Your task to perform on an android device: toggle sleep mode Image 0: 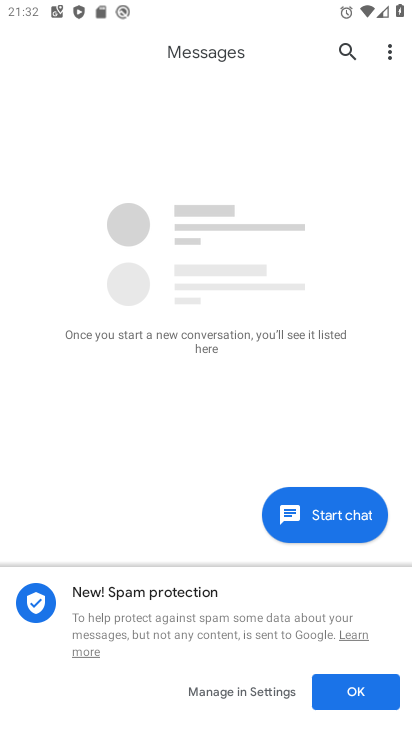
Step 0: press home button
Your task to perform on an android device: toggle sleep mode Image 1: 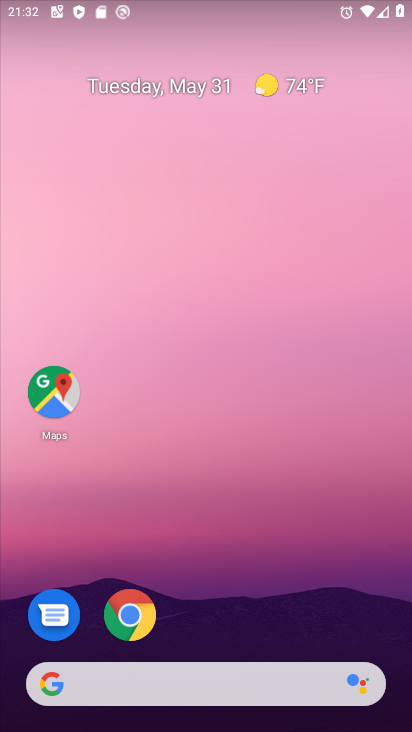
Step 1: drag from (220, 632) to (229, 144)
Your task to perform on an android device: toggle sleep mode Image 2: 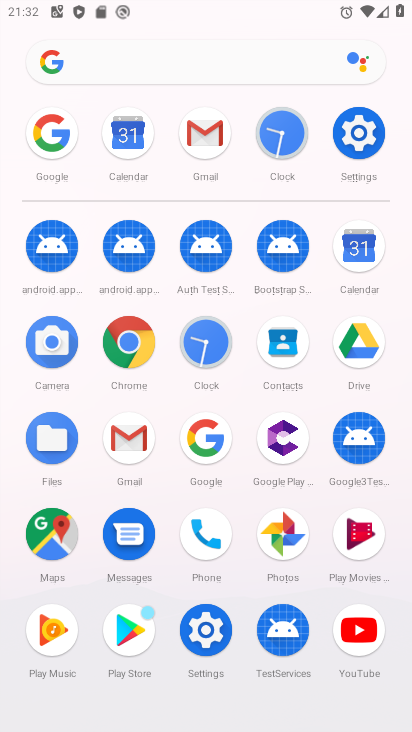
Step 2: click (351, 154)
Your task to perform on an android device: toggle sleep mode Image 3: 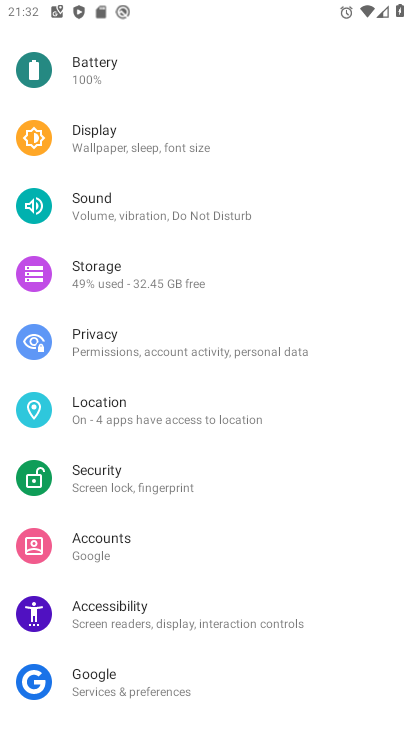
Step 3: drag from (169, 316) to (196, 557)
Your task to perform on an android device: toggle sleep mode Image 4: 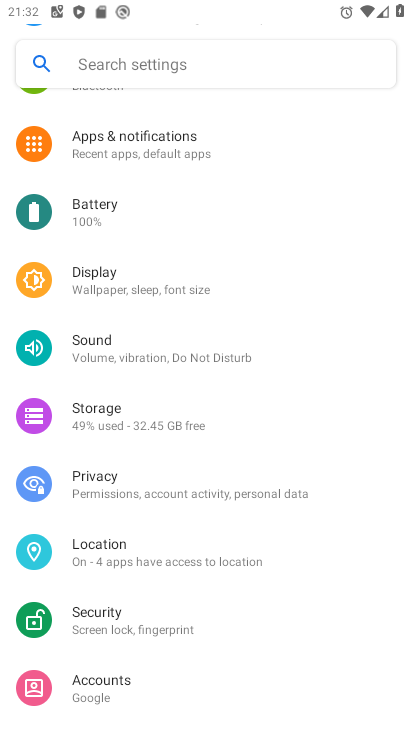
Step 4: click (168, 285)
Your task to perform on an android device: toggle sleep mode Image 5: 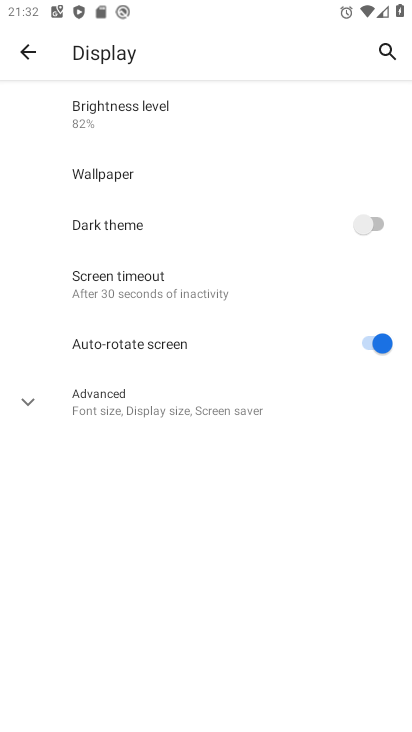
Step 5: click (197, 287)
Your task to perform on an android device: toggle sleep mode Image 6: 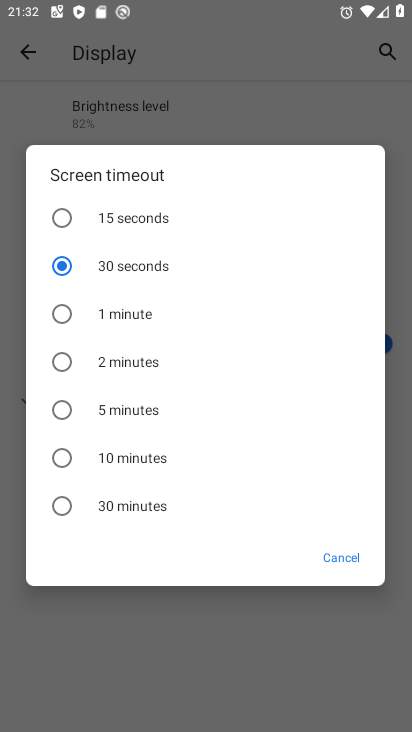
Step 6: click (127, 416)
Your task to perform on an android device: toggle sleep mode Image 7: 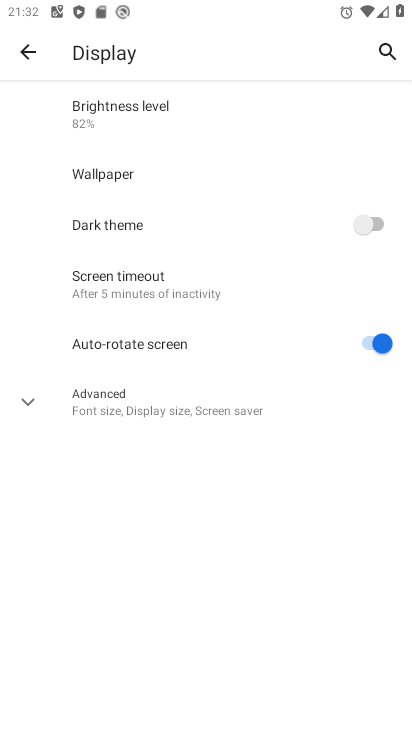
Step 7: task complete